Your task to perform on an android device: Search for Mexican restaurants on Maps Image 0: 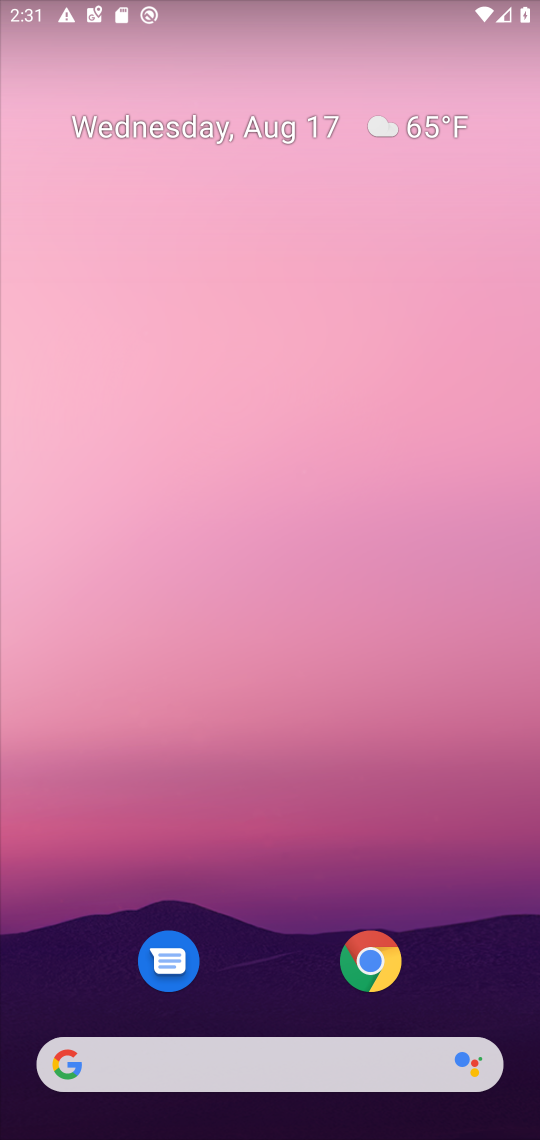
Step 0: drag from (305, 991) to (534, 163)
Your task to perform on an android device: Search for Mexican restaurants on Maps Image 1: 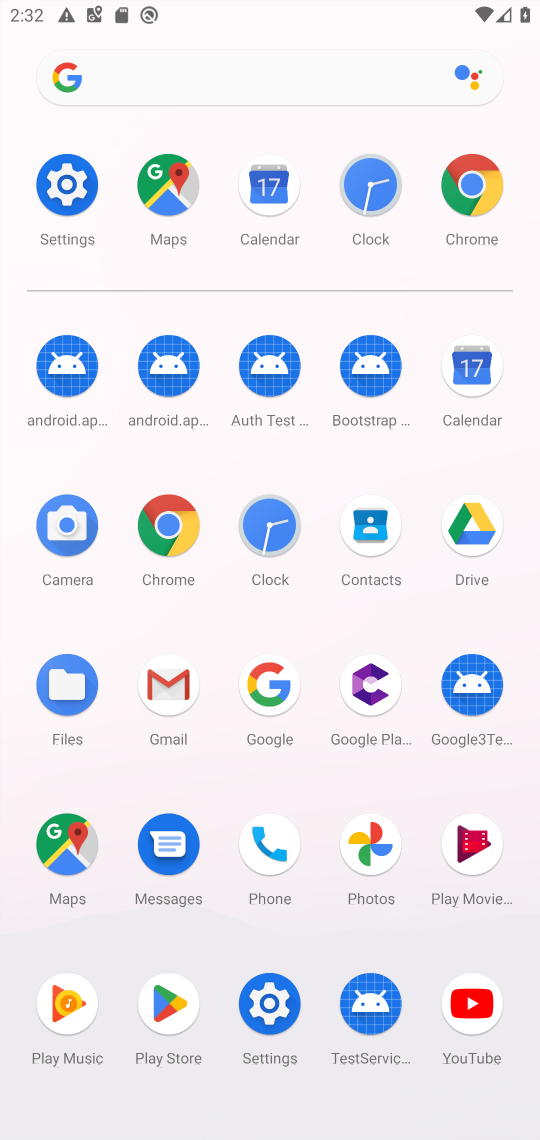
Step 1: click (71, 877)
Your task to perform on an android device: Search for Mexican restaurants on Maps Image 2: 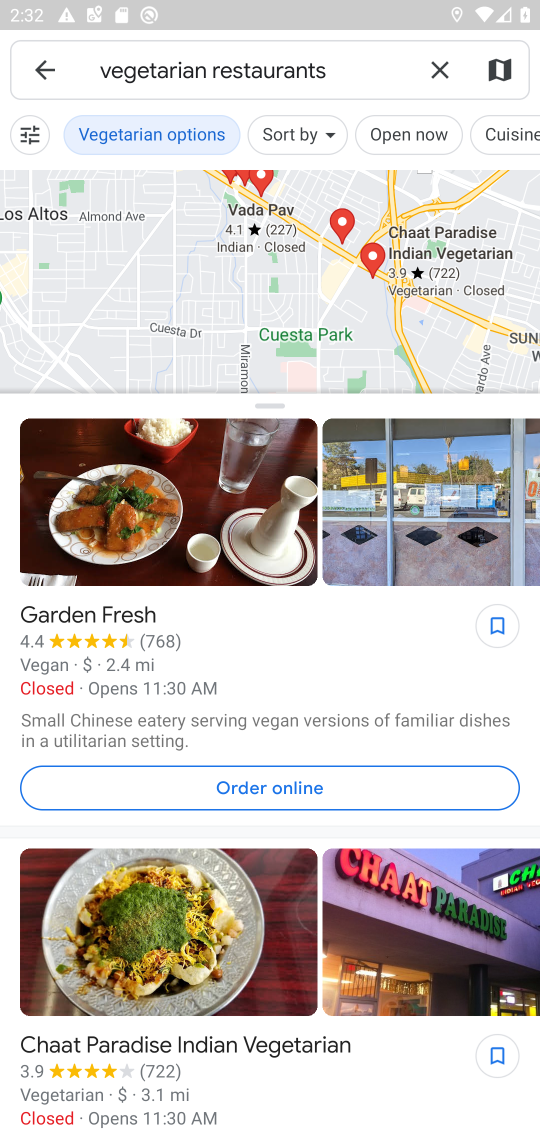
Step 2: click (436, 69)
Your task to perform on an android device: Search for Mexican restaurants on Maps Image 3: 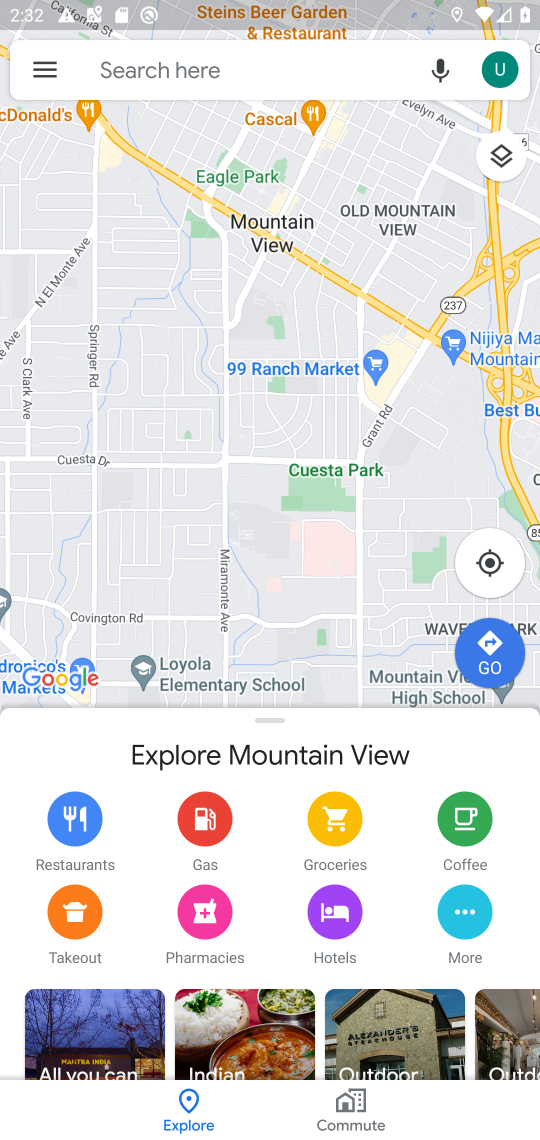
Step 3: click (281, 86)
Your task to perform on an android device: Search for Mexican restaurants on Maps Image 4: 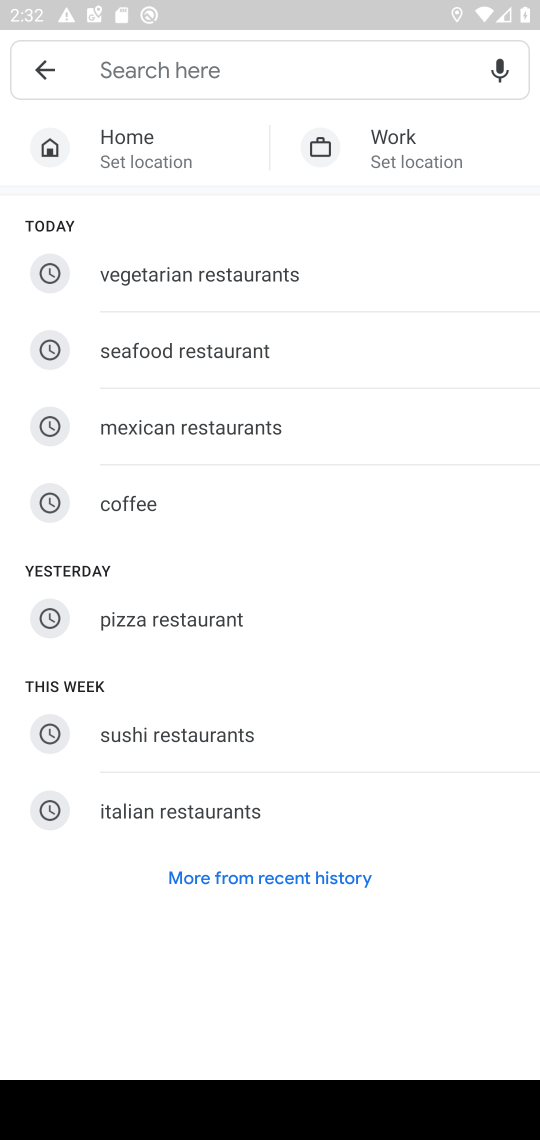
Step 4: click (203, 424)
Your task to perform on an android device: Search for Mexican restaurants on Maps Image 5: 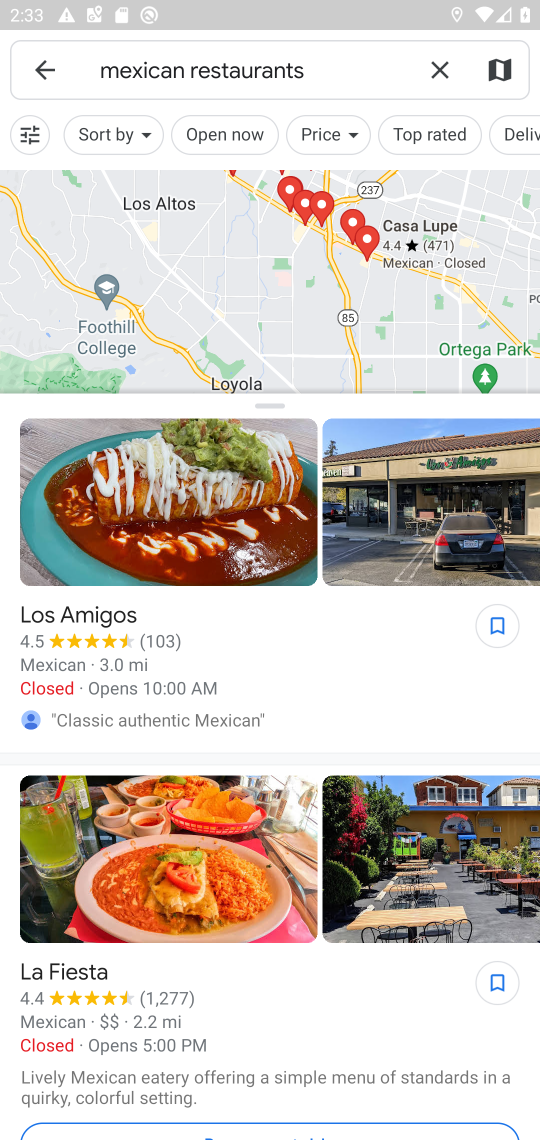
Step 5: task complete